Your task to perform on an android device: When is my next meeting? Image 0: 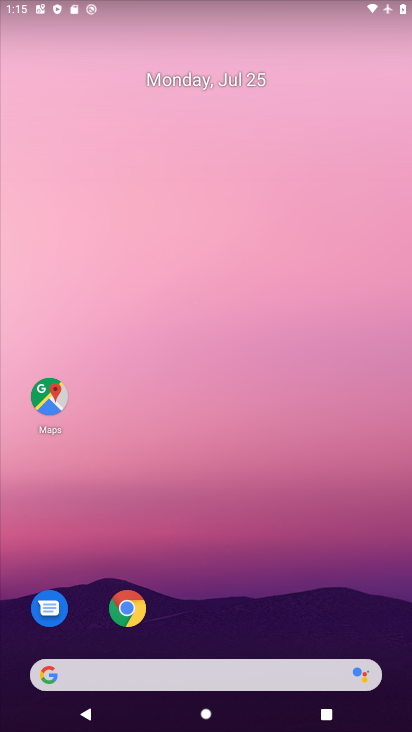
Step 0: drag from (183, 677) to (255, 158)
Your task to perform on an android device: When is my next meeting? Image 1: 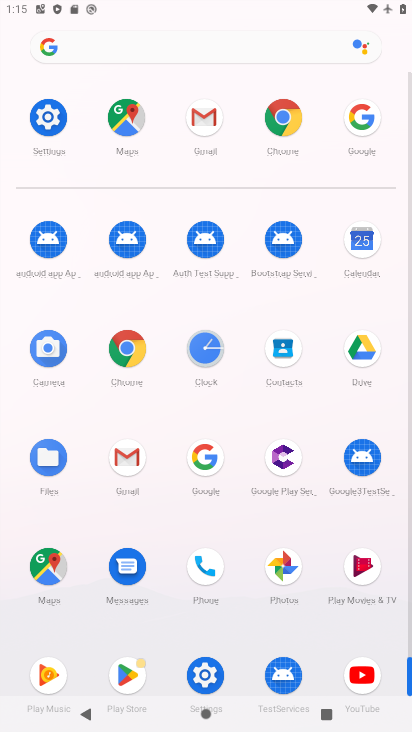
Step 1: click (363, 266)
Your task to perform on an android device: When is my next meeting? Image 2: 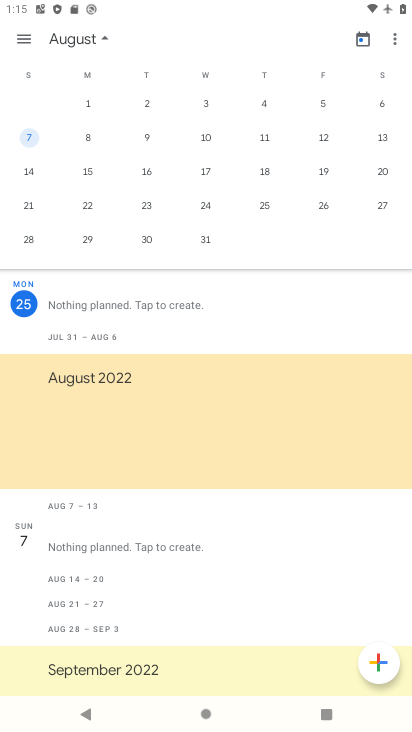
Step 2: click (31, 43)
Your task to perform on an android device: When is my next meeting? Image 3: 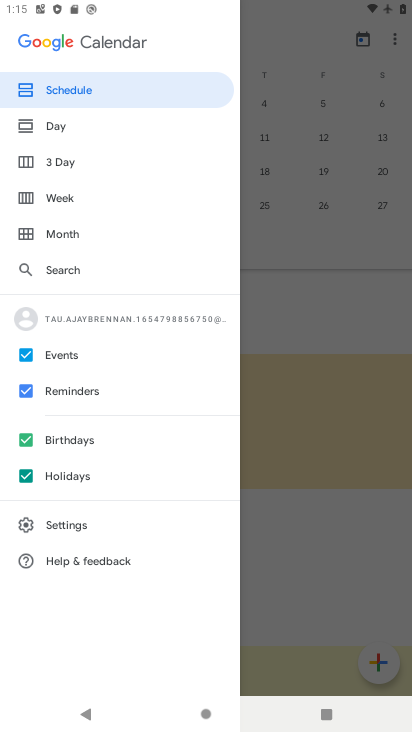
Step 3: click (33, 469)
Your task to perform on an android device: When is my next meeting? Image 4: 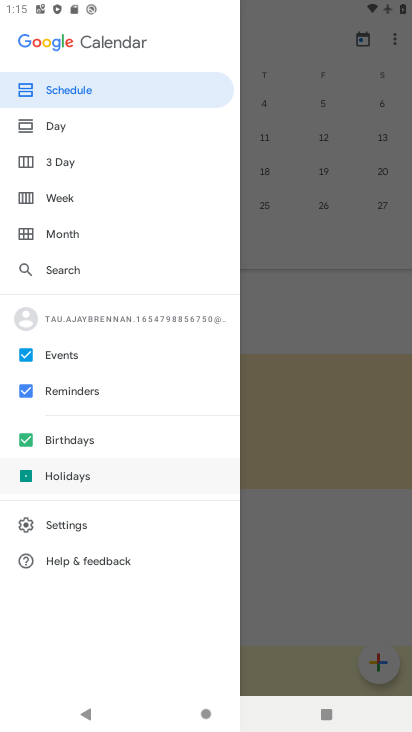
Step 4: click (24, 443)
Your task to perform on an android device: When is my next meeting? Image 5: 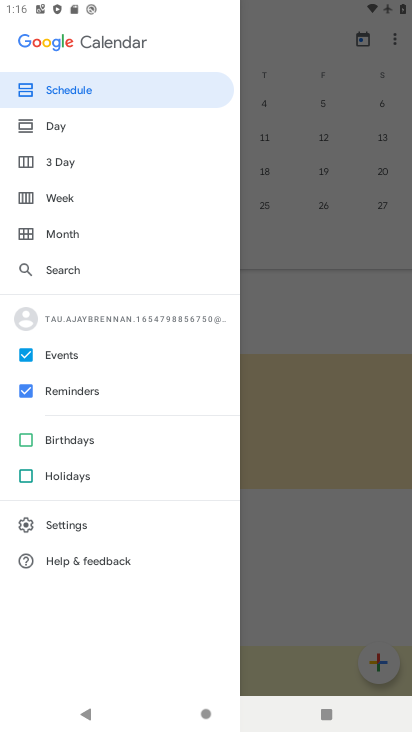
Step 5: click (359, 307)
Your task to perform on an android device: When is my next meeting? Image 6: 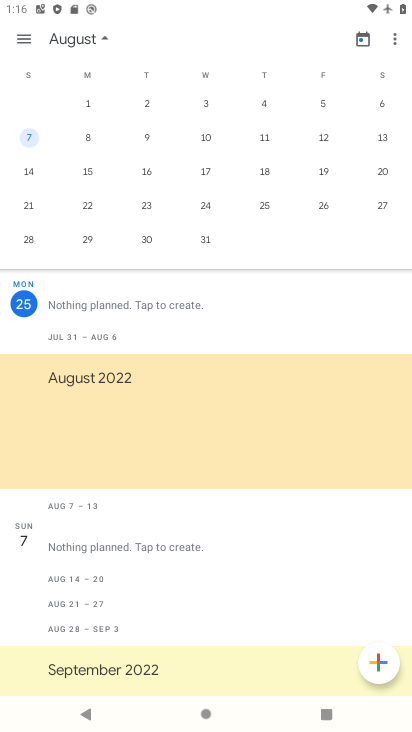
Step 6: drag from (67, 197) to (400, 212)
Your task to perform on an android device: When is my next meeting? Image 7: 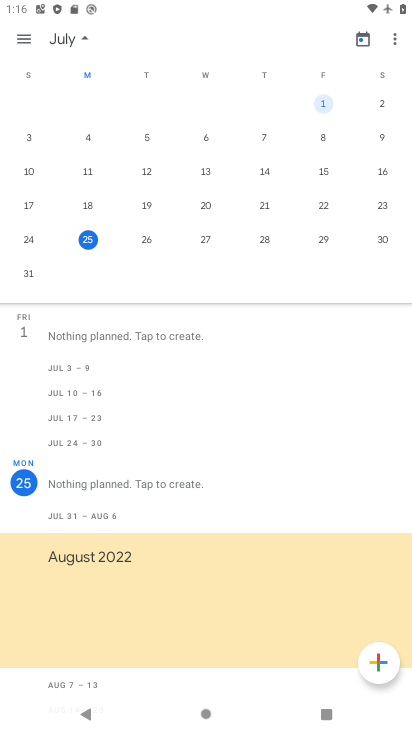
Step 7: click (86, 240)
Your task to perform on an android device: When is my next meeting? Image 8: 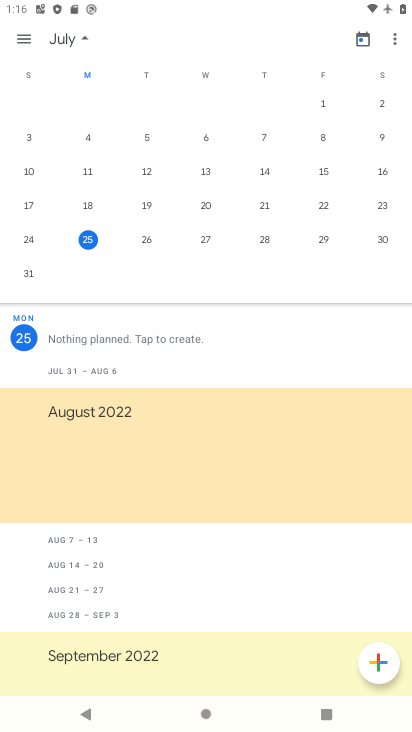
Step 8: task complete